Your task to perform on an android device: see creations saved in the google photos Image 0: 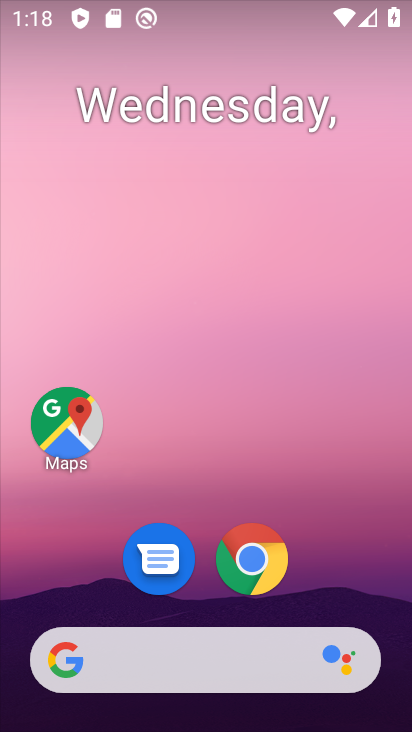
Step 0: drag from (179, 468) to (245, 47)
Your task to perform on an android device: see creations saved in the google photos Image 1: 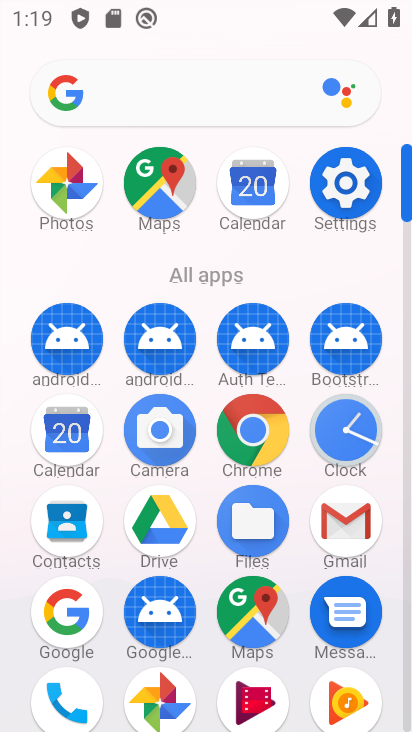
Step 1: click (169, 707)
Your task to perform on an android device: see creations saved in the google photos Image 2: 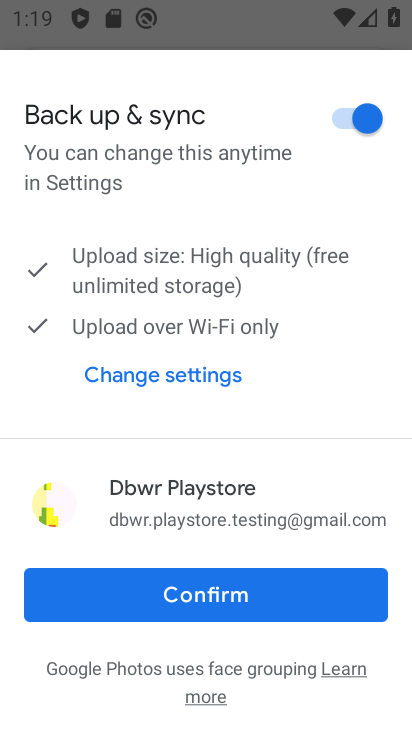
Step 2: click (261, 605)
Your task to perform on an android device: see creations saved in the google photos Image 3: 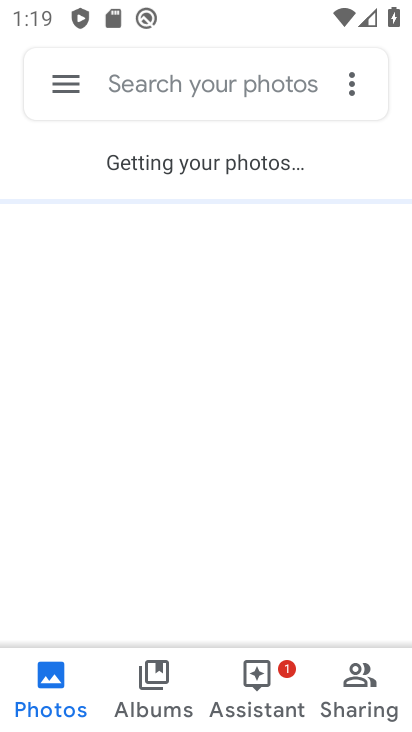
Step 3: click (61, 87)
Your task to perform on an android device: see creations saved in the google photos Image 4: 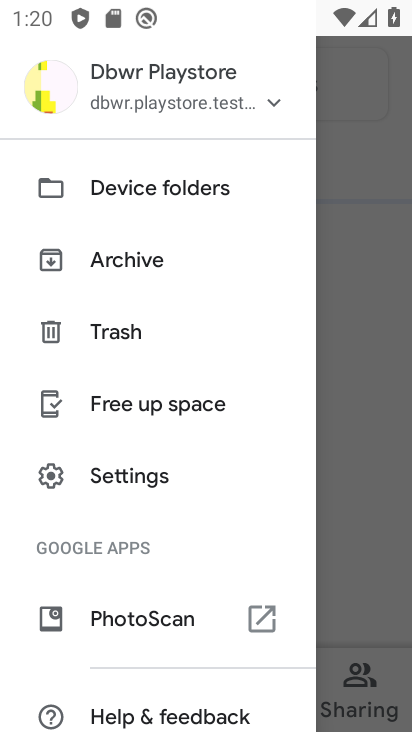
Step 4: click (351, 427)
Your task to perform on an android device: see creations saved in the google photos Image 5: 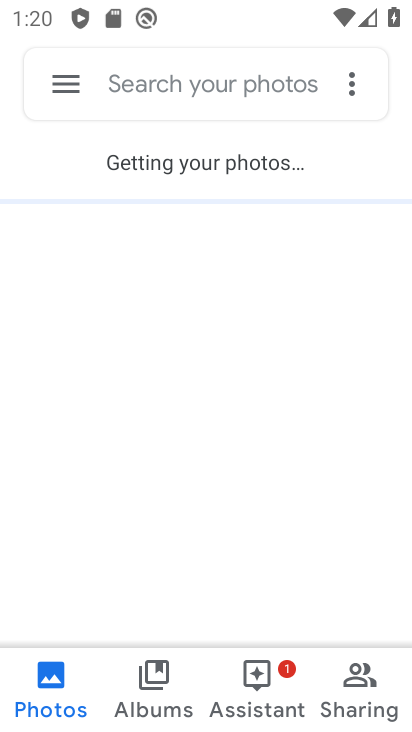
Step 5: click (65, 110)
Your task to perform on an android device: see creations saved in the google photos Image 6: 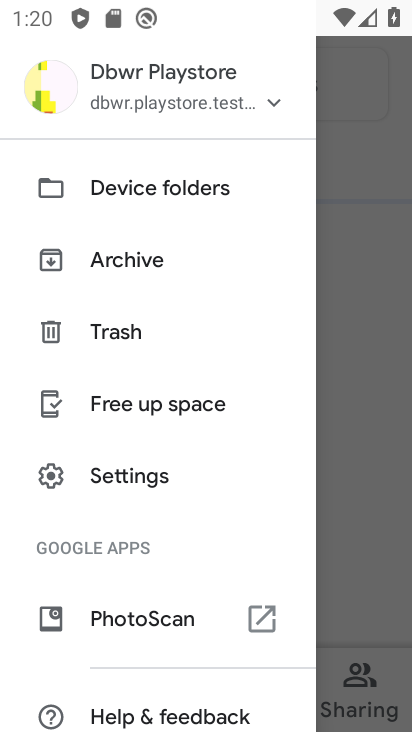
Step 6: drag from (153, 628) to (214, 206)
Your task to perform on an android device: see creations saved in the google photos Image 7: 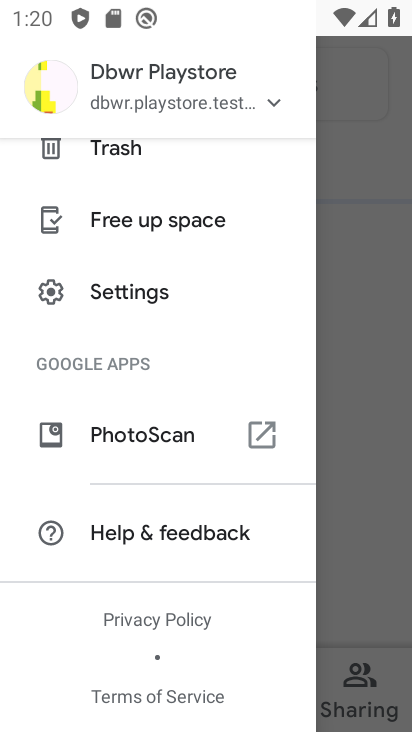
Step 7: click (340, 265)
Your task to perform on an android device: see creations saved in the google photos Image 8: 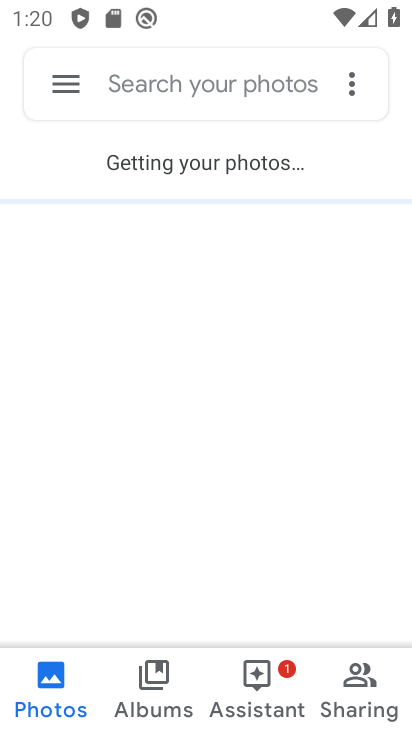
Step 8: task complete